Your task to perform on an android device: Toggle the flashlight Image 0: 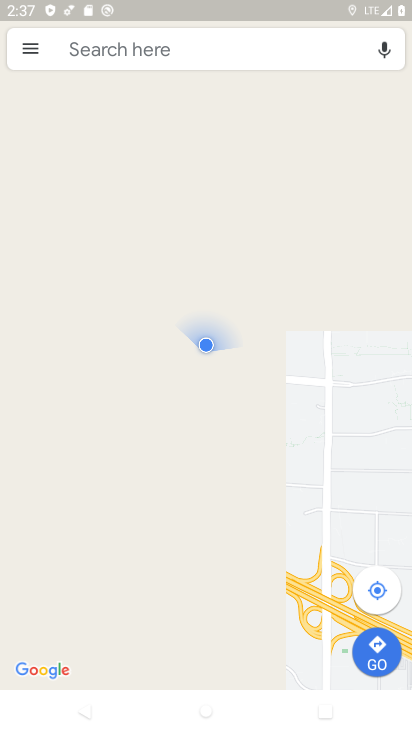
Step 0: press home button
Your task to perform on an android device: Toggle the flashlight Image 1: 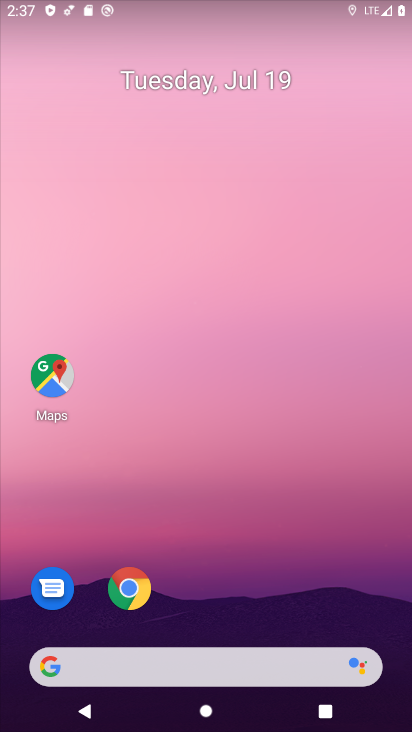
Step 1: drag from (213, 602) to (266, 102)
Your task to perform on an android device: Toggle the flashlight Image 2: 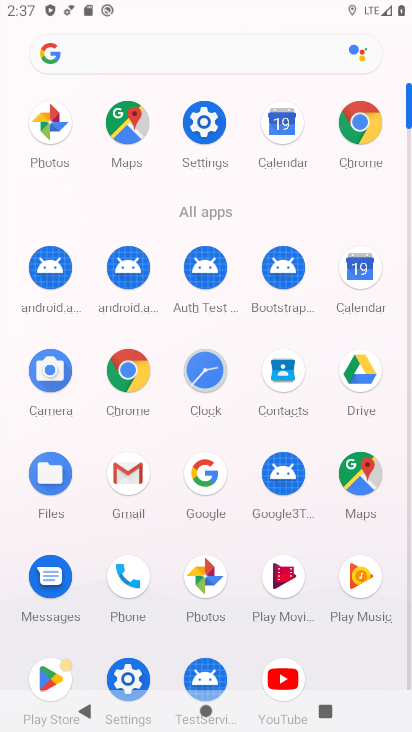
Step 2: click (207, 122)
Your task to perform on an android device: Toggle the flashlight Image 3: 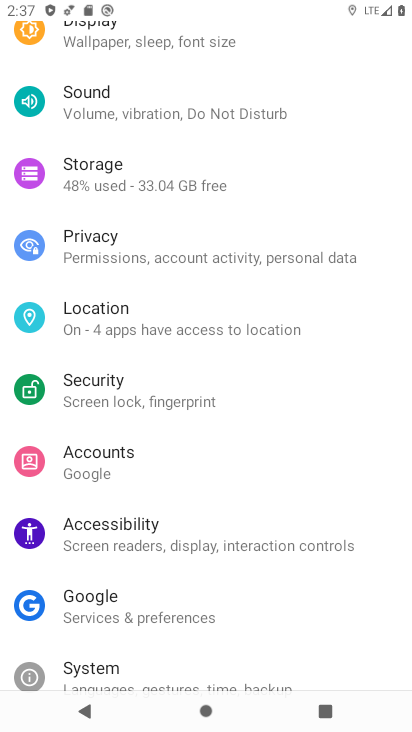
Step 3: drag from (264, 65) to (288, 540)
Your task to perform on an android device: Toggle the flashlight Image 4: 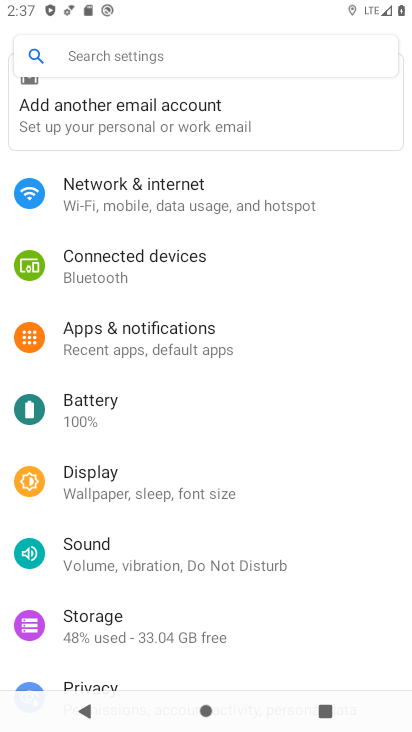
Step 4: click (224, 57)
Your task to perform on an android device: Toggle the flashlight Image 5: 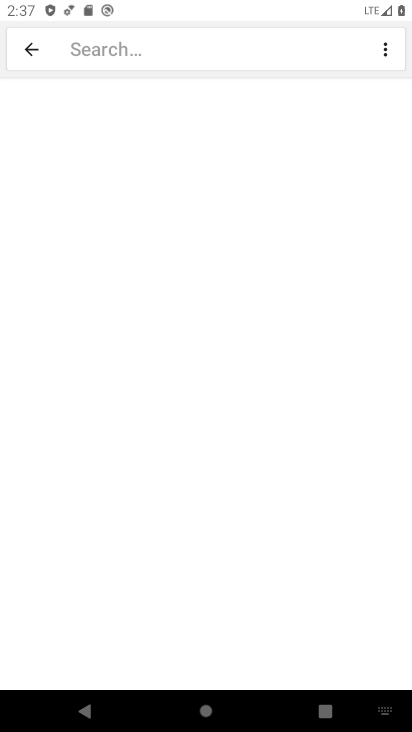
Step 5: type "flash"
Your task to perform on an android device: Toggle the flashlight Image 6: 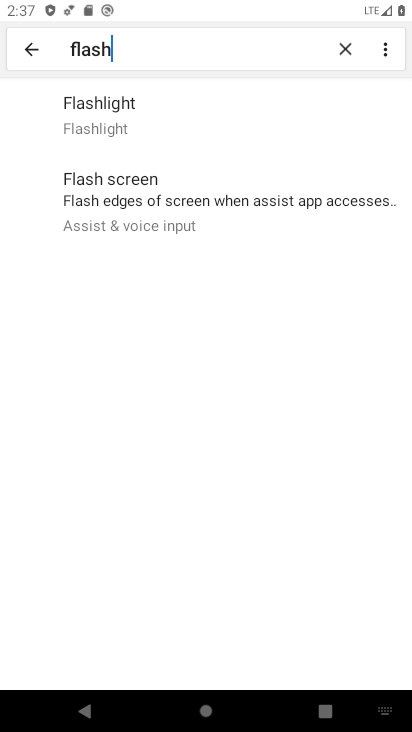
Step 6: task complete